Your task to perform on an android device: Open location settings Image 0: 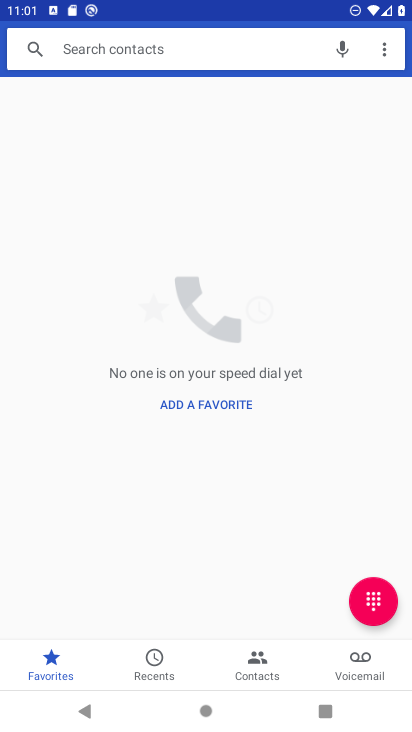
Step 0: press home button
Your task to perform on an android device: Open location settings Image 1: 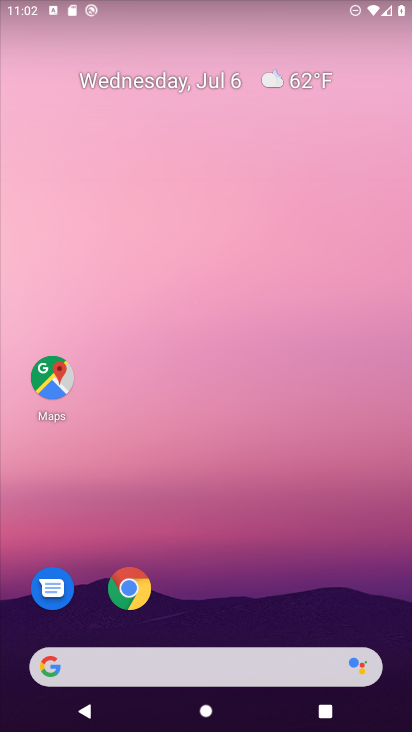
Step 1: drag from (370, 617) to (353, 25)
Your task to perform on an android device: Open location settings Image 2: 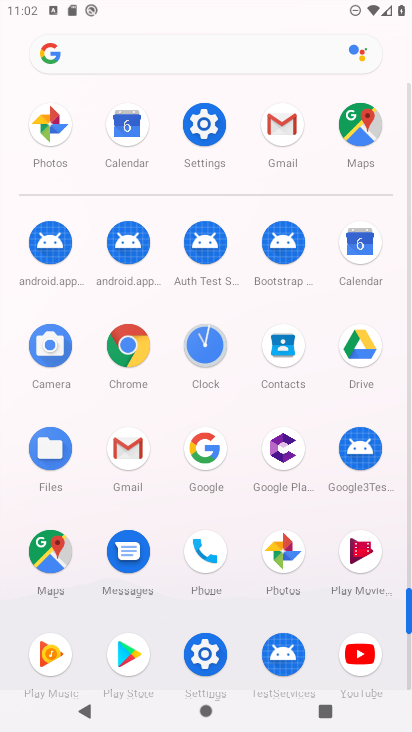
Step 2: click (204, 651)
Your task to perform on an android device: Open location settings Image 3: 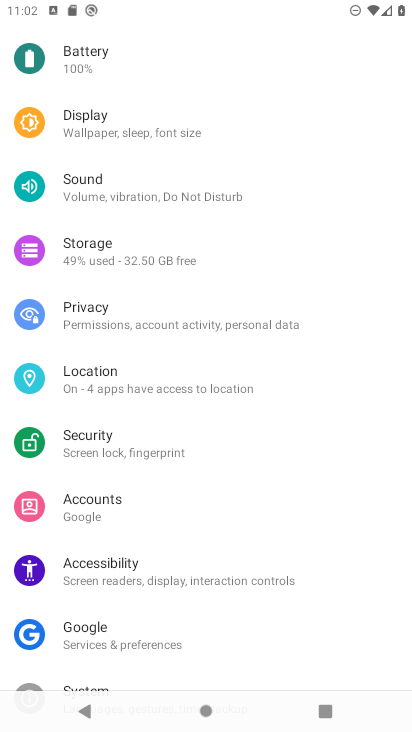
Step 3: click (103, 388)
Your task to perform on an android device: Open location settings Image 4: 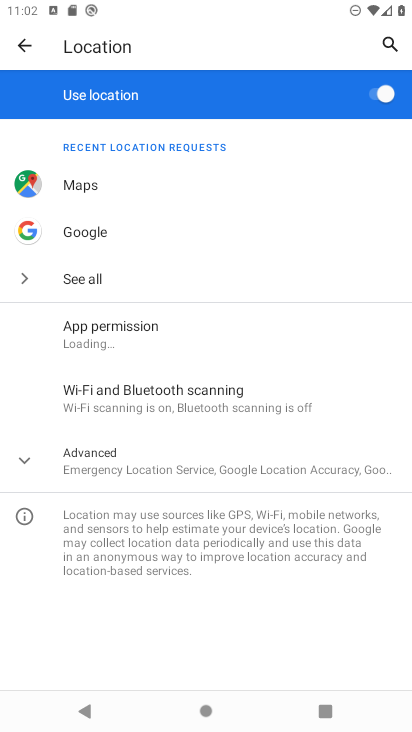
Step 4: task complete